Your task to perform on an android device: toggle data saver in the chrome app Image 0: 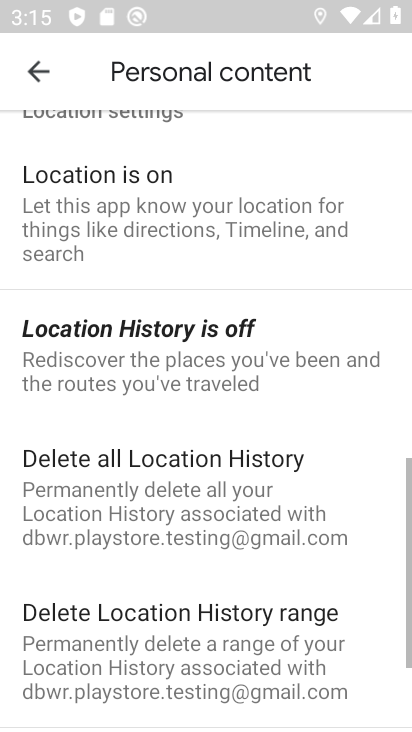
Step 0: drag from (293, 559) to (307, 256)
Your task to perform on an android device: toggle data saver in the chrome app Image 1: 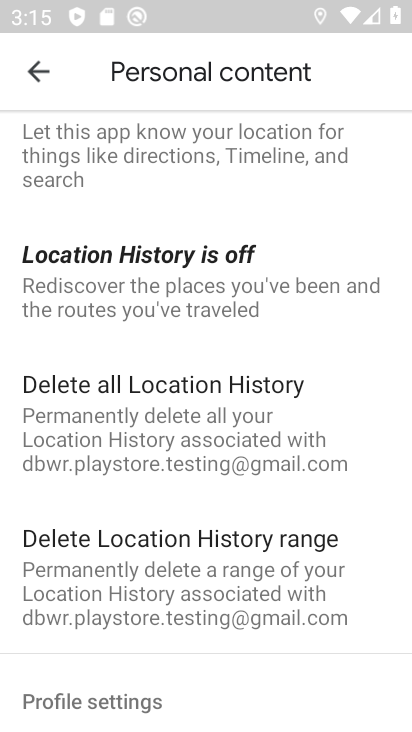
Step 1: press home button
Your task to perform on an android device: toggle data saver in the chrome app Image 2: 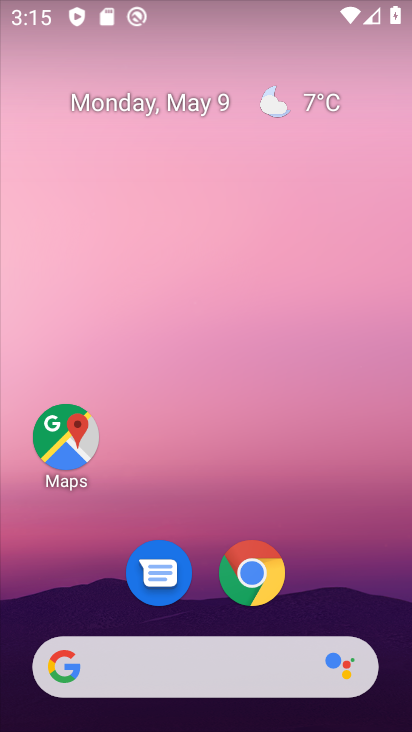
Step 2: drag from (305, 524) to (308, 185)
Your task to perform on an android device: toggle data saver in the chrome app Image 3: 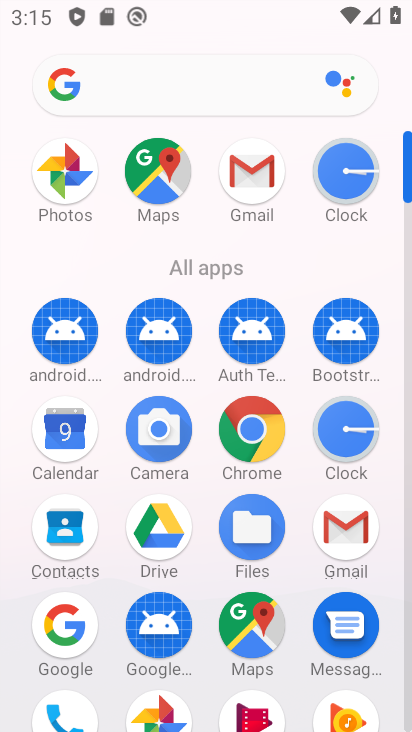
Step 3: click (249, 437)
Your task to perform on an android device: toggle data saver in the chrome app Image 4: 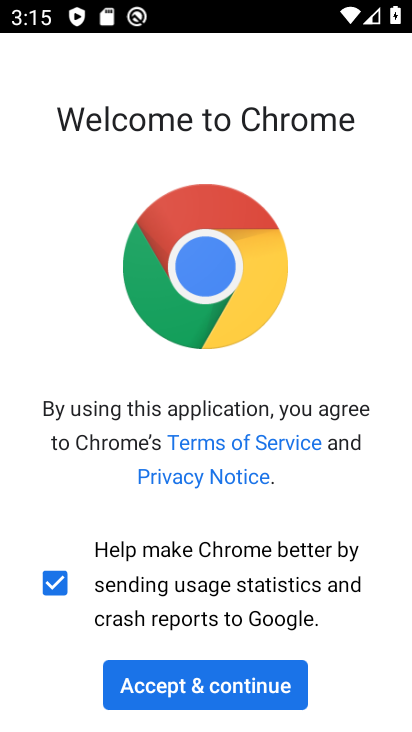
Step 4: click (185, 684)
Your task to perform on an android device: toggle data saver in the chrome app Image 5: 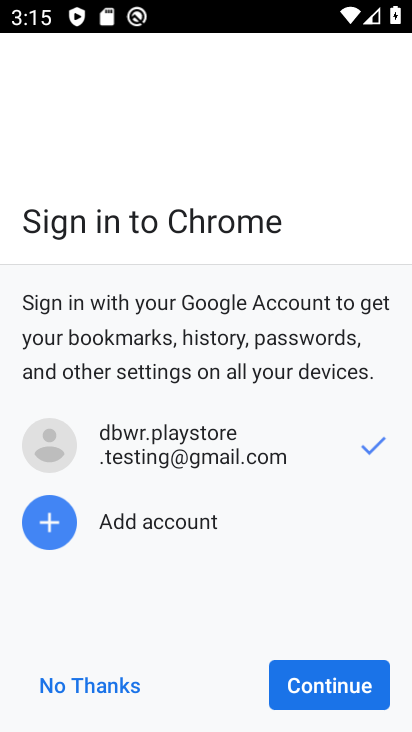
Step 5: click (311, 689)
Your task to perform on an android device: toggle data saver in the chrome app Image 6: 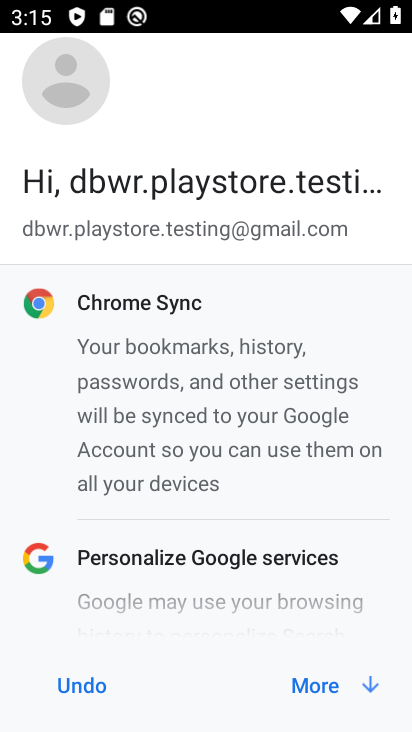
Step 6: click (297, 680)
Your task to perform on an android device: toggle data saver in the chrome app Image 7: 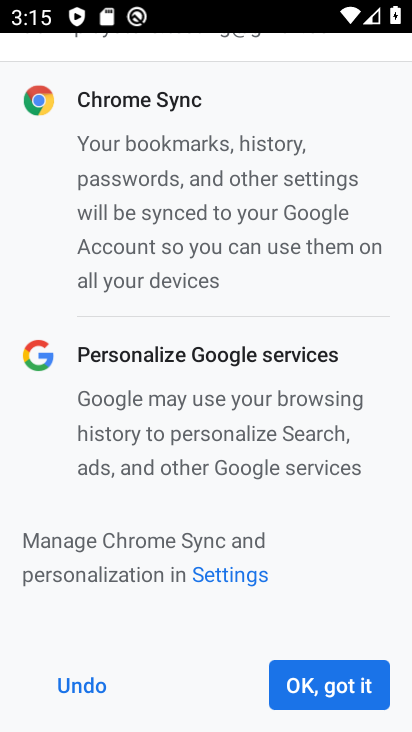
Step 7: click (293, 674)
Your task to perform on an android device: toggle data saver in the chrome app Image 8: 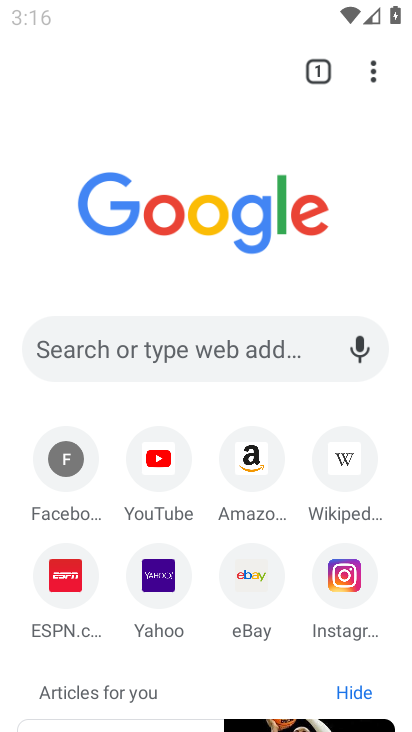
Step 8: click (369, 62)
Your task to perform on an android device: toggle data saver in the chrome app Image 9: 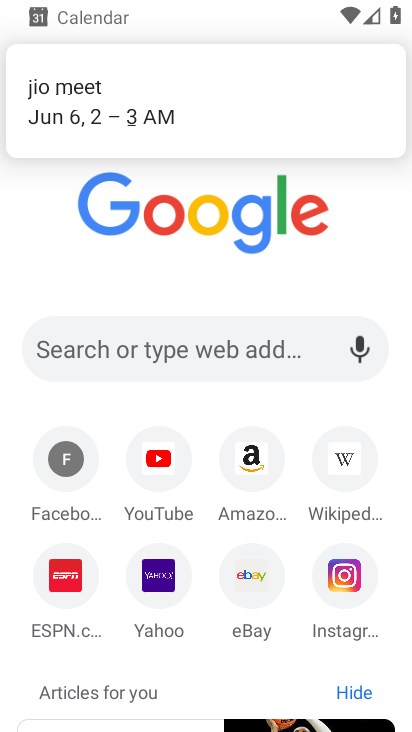
Step 9: click (363, 226)
Your task to perform on an android device: toggle data saver in the chrome app Image 10: 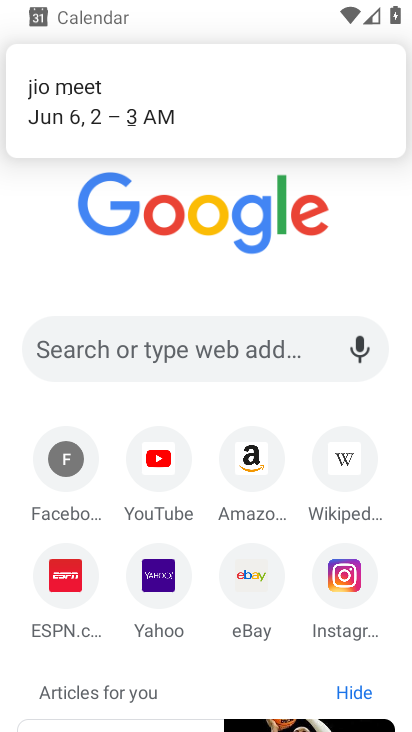
Step 10: click (359, 214)
Your task to perform on an android device: toggle data saver in the chrome app Image 11: 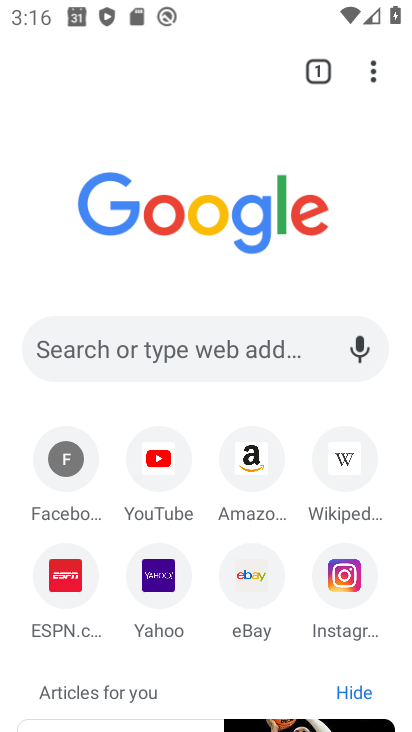
Step 11: click (367, 74)
Your task to perform on an android device: toggle data saver in the chrome app Image 12: 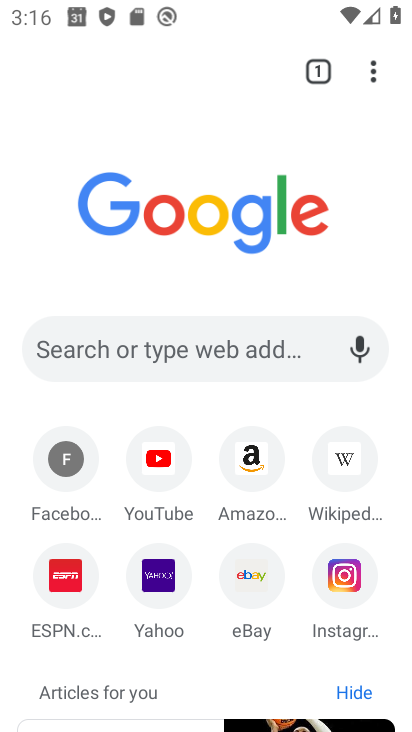
Step 12: click (358, 69)
Your task to perform on an android device: toggle data saver in the chrome app Image 13: 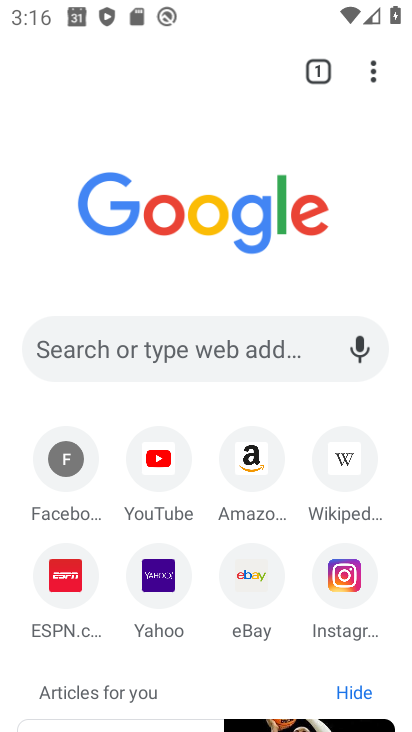
Step 13: click (348, 76)
Your task to perform on an android device: toggle data saver in the chrome app Image 14: 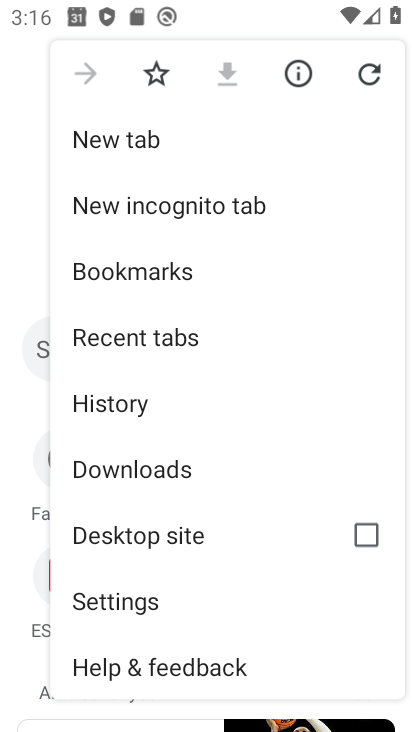
Step 14: click (120, 602)
Your task to perform on an android device: toggle data saver in the chrome app Image 15: 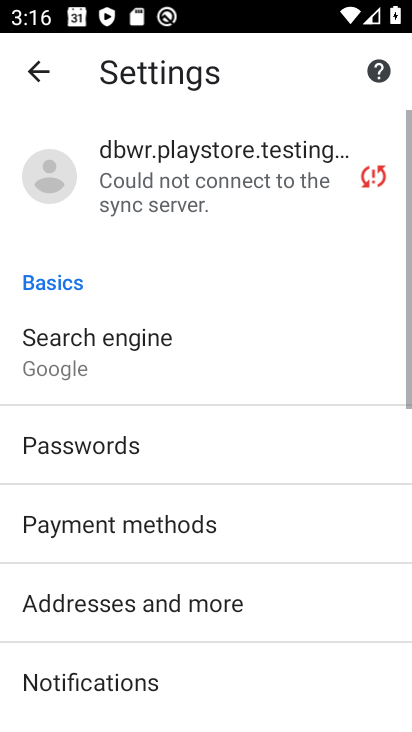
Step 15: drag from (163, 640) to (253, 173)
Your task to perform on an android device: toggle data saver in the chrome app Image 16: 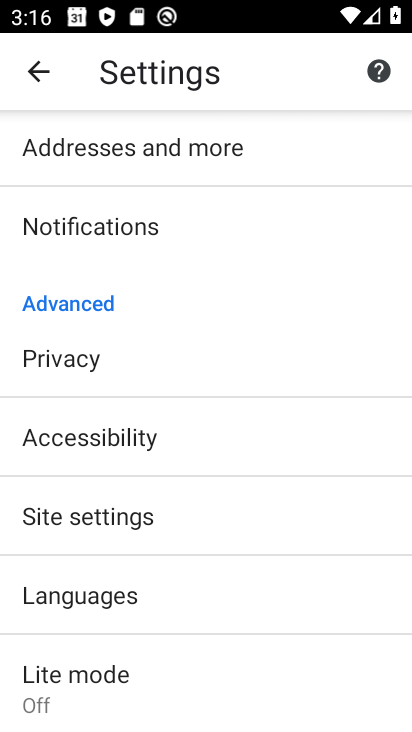
Step 16: click (123, 669)
Your task to perform on an android device: toggle data saver in the chrome app Image 17: 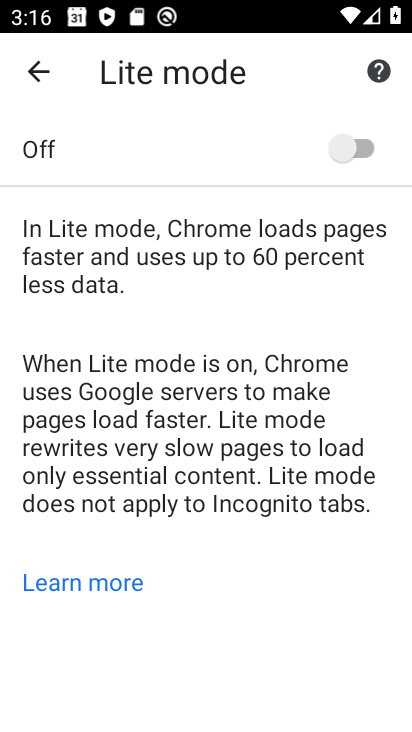
Step 17: click (374, 136)
Your task to perform on an android device: toggle data saver in the chrome app Image 18: 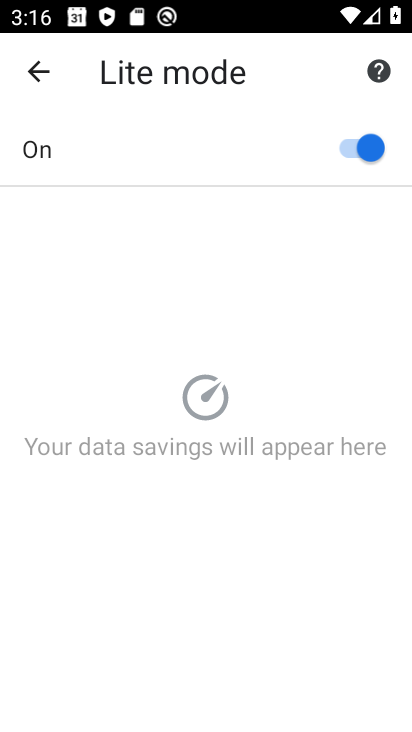
Step 18: task complete